Your task to perform on an android device: turn on data saver in the chrome app Image 0: 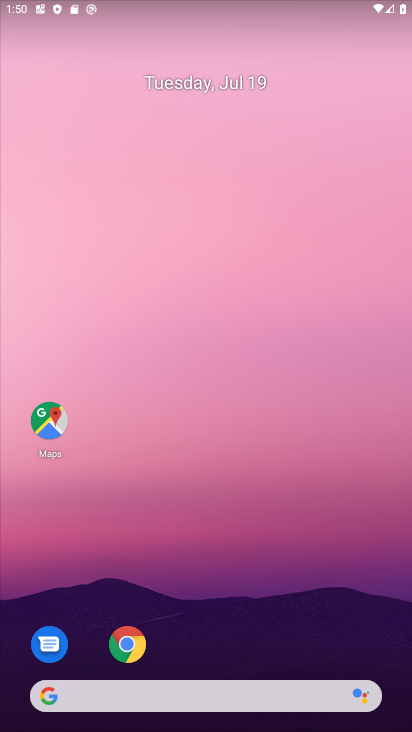
Step 0: click (54, 431)
Your task to perform on an android device: turn on data saver in the chrome app Image 1: 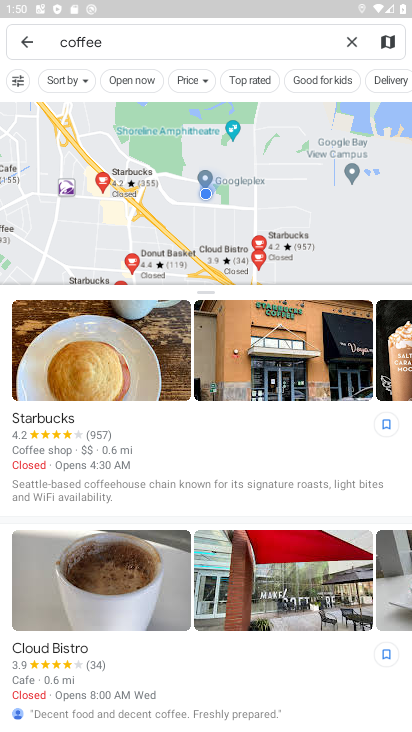
Step 1: task complete